Your task to perform on an android device: Go to notification settings Image 0: 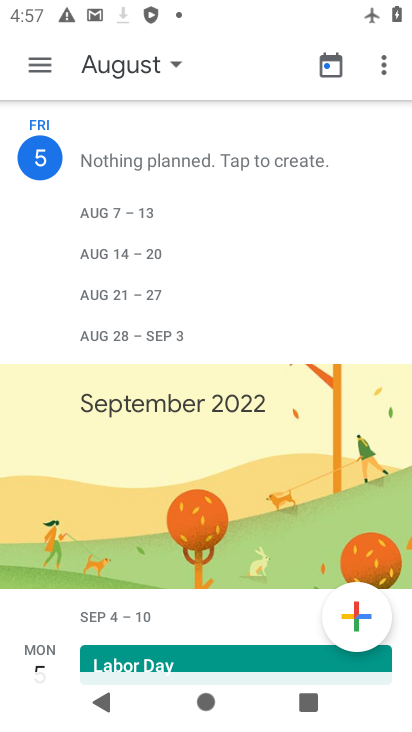
Step 0: click (334, 68)
Your task to perform on an android device: Go to notification settings Image 1: 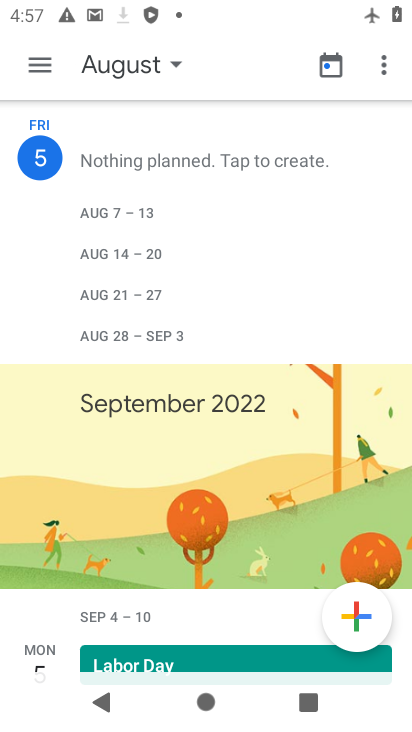
Step 1: click (323, 60)
Your task to perform on an android device: Go to notification settings Image 2: 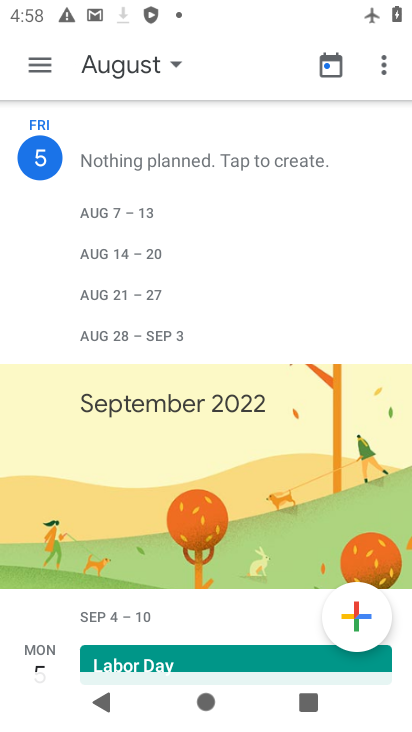
Step 2: press home button
Your task to perform on an android device: Go to notification settings Image 3: 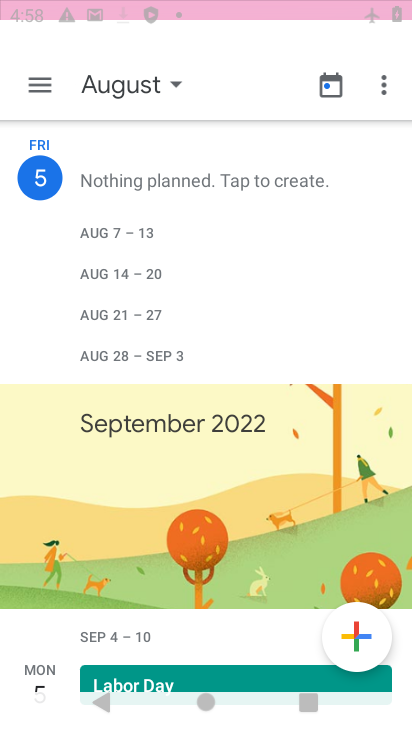
Step 3: drag from (175, 589) to (238, 114)
Your task to perform on an android device: Go to notification settings Image 4: 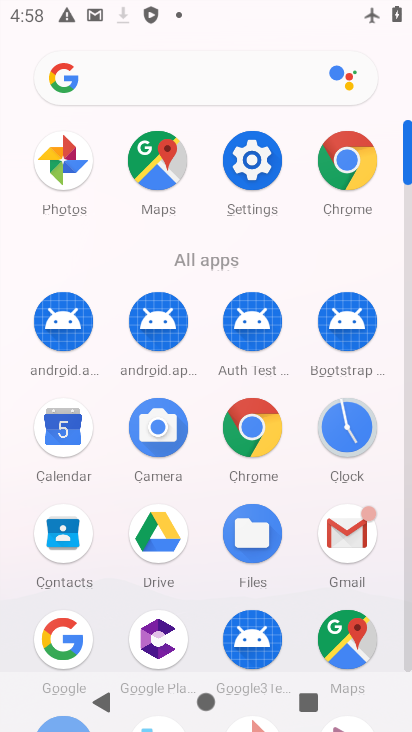
Step 4: click (247, 147)
Your task to perform on an android device: Go to notification settings Image 5: 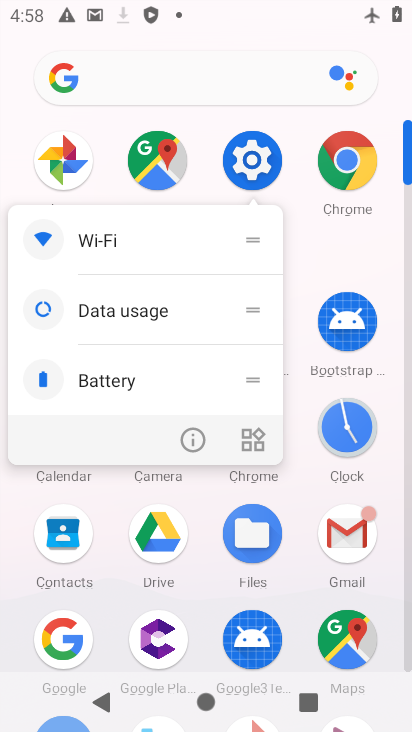
Step 5: click (193, 434)
Your task to perform on an android device: Go to notification settings Image 6: 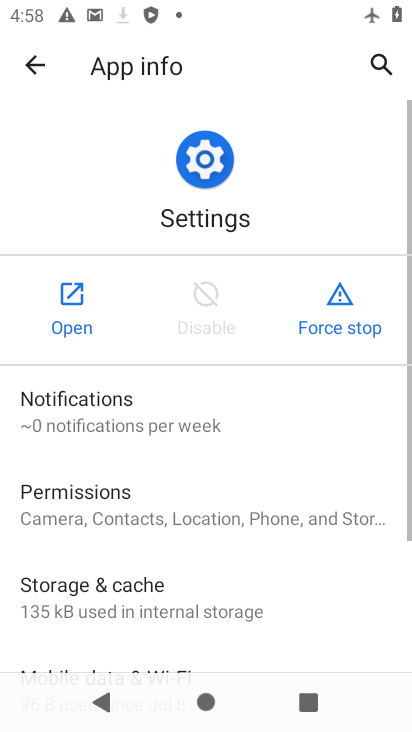
Step 6: click (65, 313)
Your task to perform on an android device: Go to notification settings Image 7: 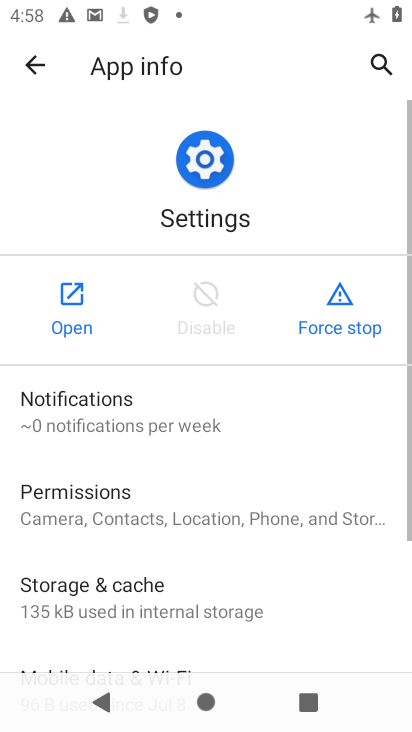
Step 7: click (65, 313)
Your task to perform on an android device: Go to notification settings Image 8: 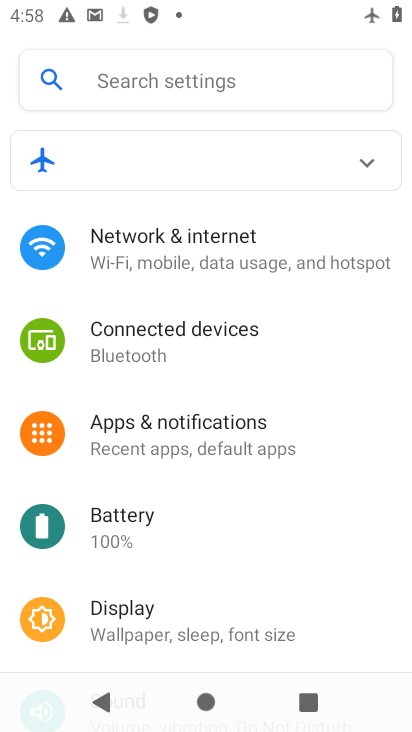
Step 8: drag from (239, 658) to (305, 261)
Your task to perform on an android device: Go to notification settings Image 9: 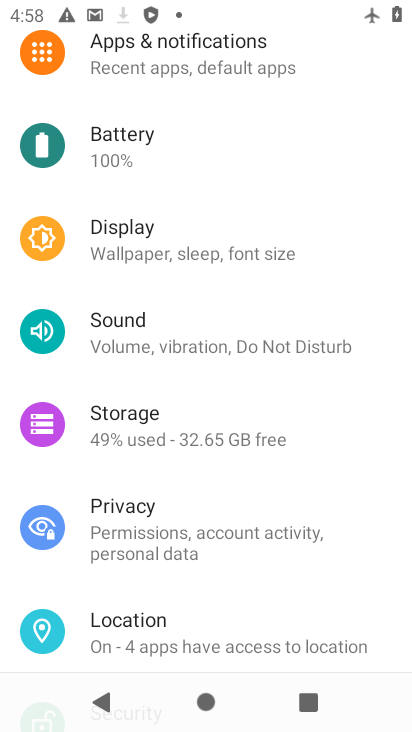
Step 9: click (198, 66)
Your task to perform on an android device: Go to notification settings Image 10: 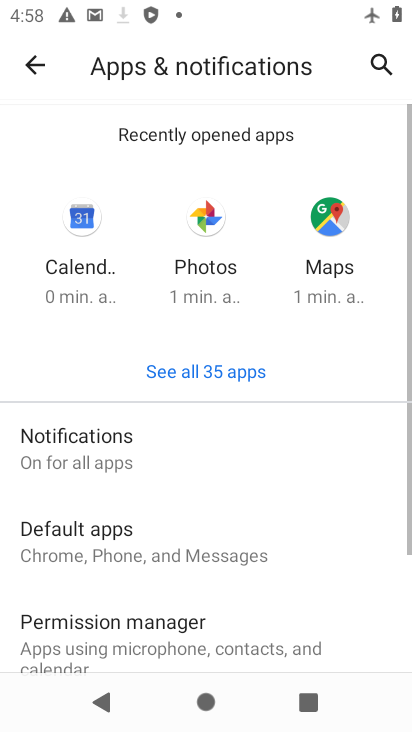
Step 10: drag from (224, 516) to (240, 167)
Your task to perform on an android device: Go to notification settings Image 11: 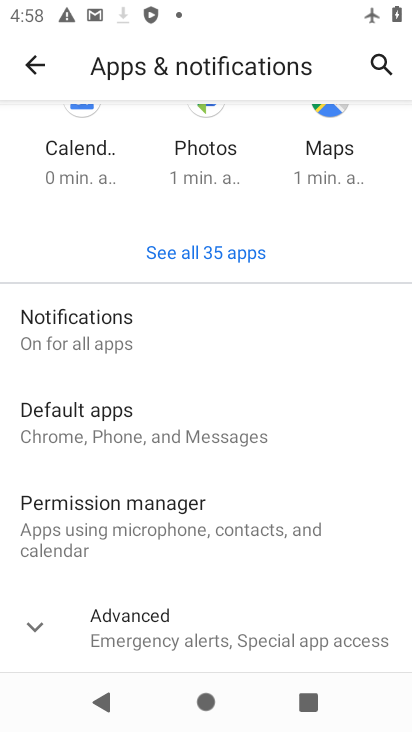
Step 11: click (137, 326)
Your task to perform on an android device: Go to notification settings Image 12: 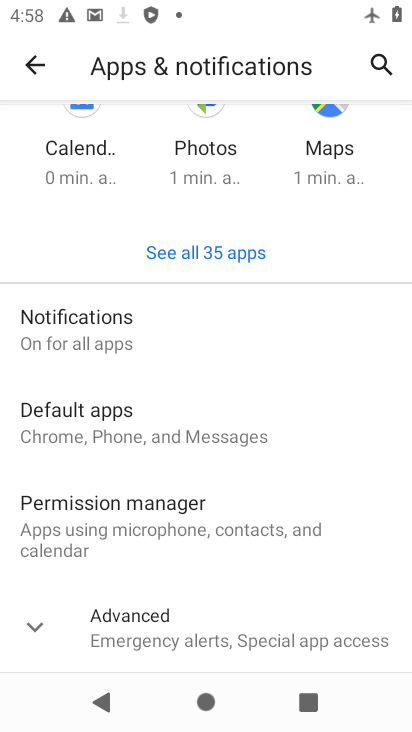
Step 12: click (137, 326)
Your task to perform on an android device: Go to notification settings Image 13: 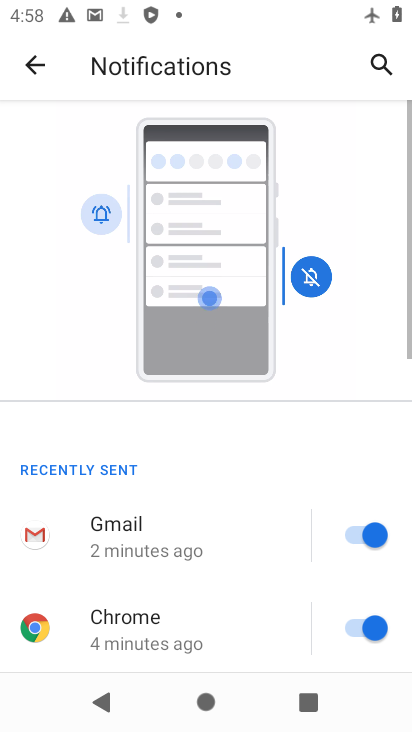
Step 13: task complete